Your task to perform on an android device: change the clock display to show seconds Image 0: 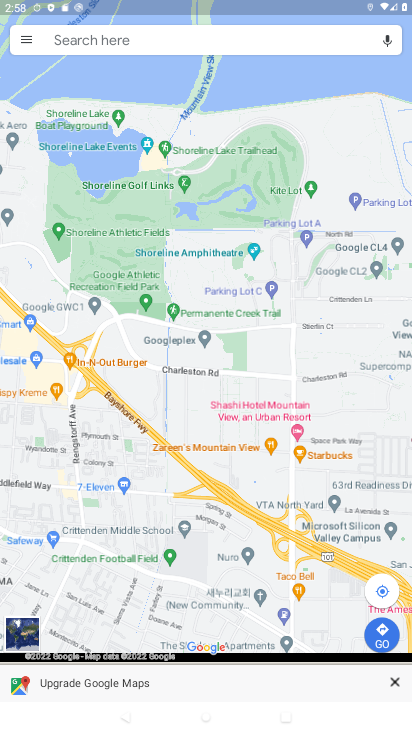
Step 0: click (213, 571)
Your task to perform on an android device: change the clock display to show seconds Image 1: 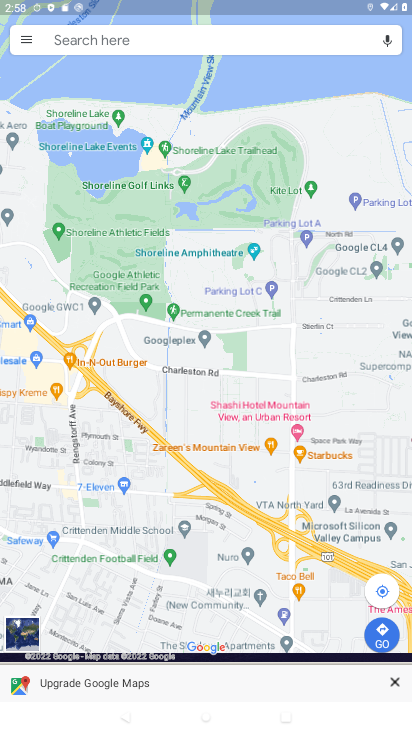
Step 1: drag from (233, 217) to (264, 8)
Your task to perform on an android device: change the clock display to show seconds Image 2: 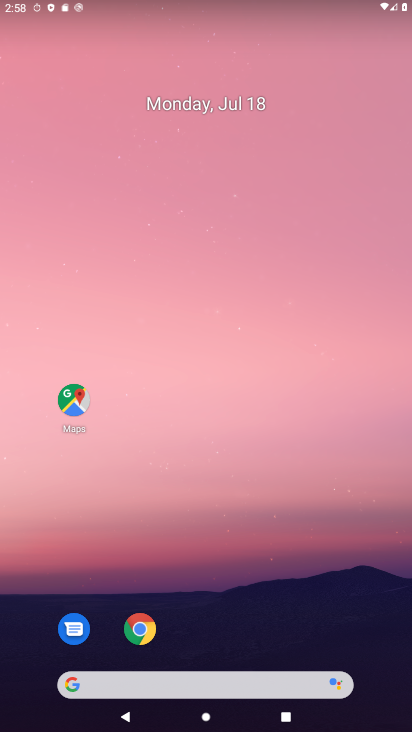
Step 2: drag from (223, 664) to (275, 9)
Your task to perform on an android device: change the clock display to show seconds Image 3: 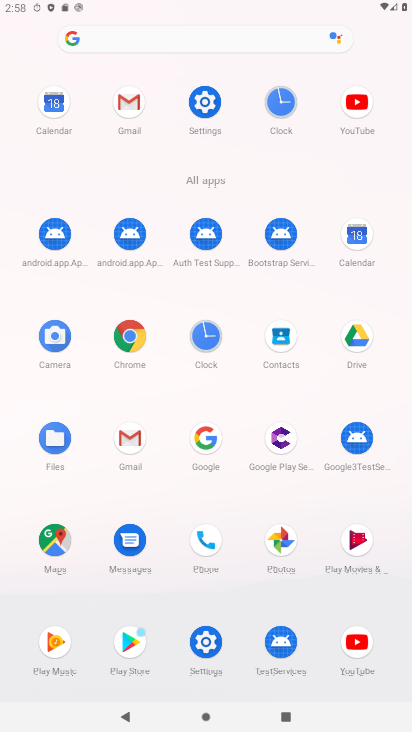
Step 3: click (200, 349)
Your task to perform on an android device: change the clock display to show seconds Image 4: 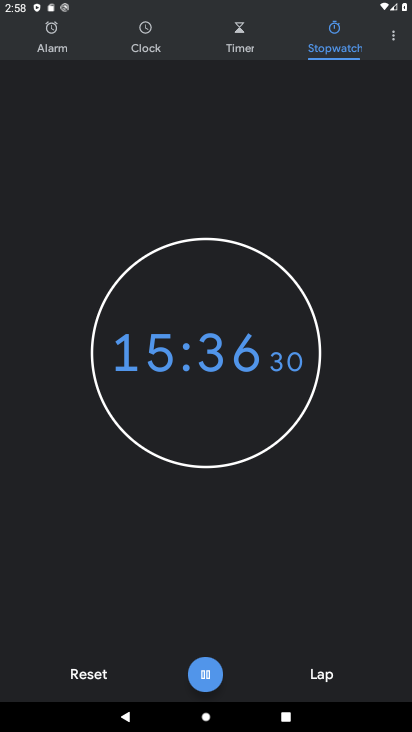
Step 4: click (84, 680)
Your task to perform on an android device: change the clock display to show seconds Image 5: 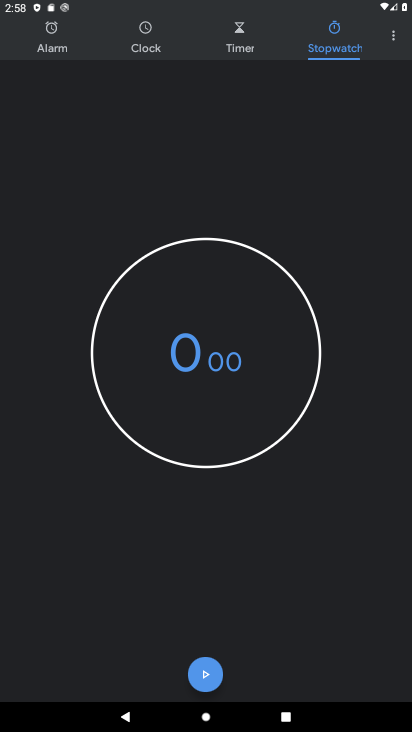
Step 5: click (393, 48)
Your task to perform on an android device: change the clock display to show seconds Image 6: 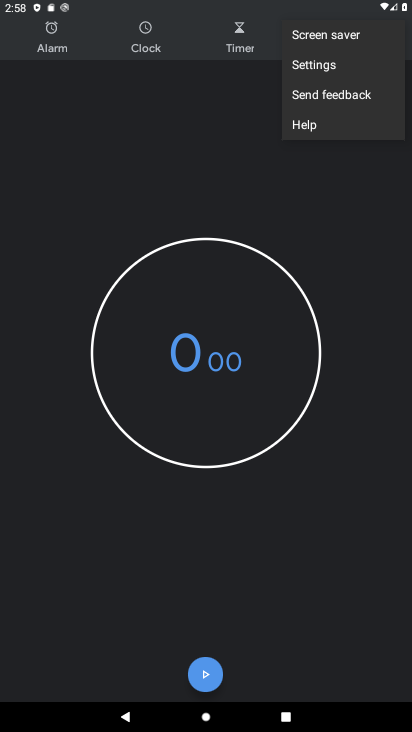
Step 6: click (326, 63)
Your task to perform on an android device: change the clock display to show seconds Image 7: 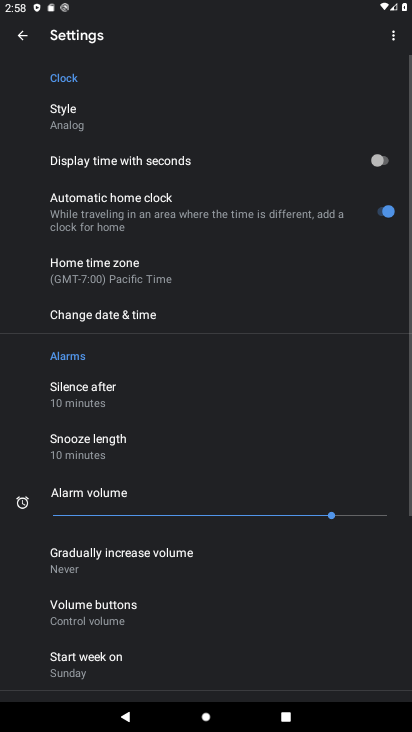
Step 7: click (66, 121)
Your task to perform on an android device: change the clock display to show seconds Image 8: 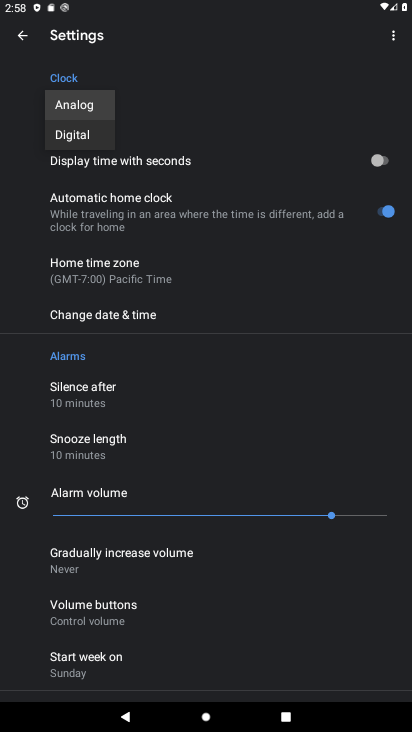
Step 8: click (98, 139)
Your task to perform on an android device: change the clock display to show seconds Image 9: 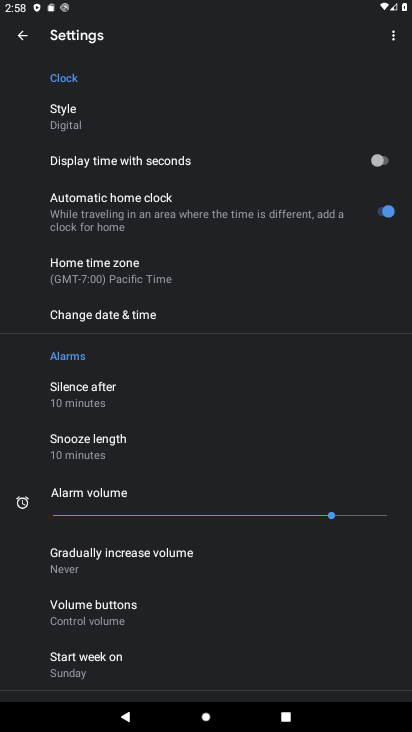
Step 9: click (391, 161)
Your task to perform on an android device: change the clock display to show seconds Image 10: 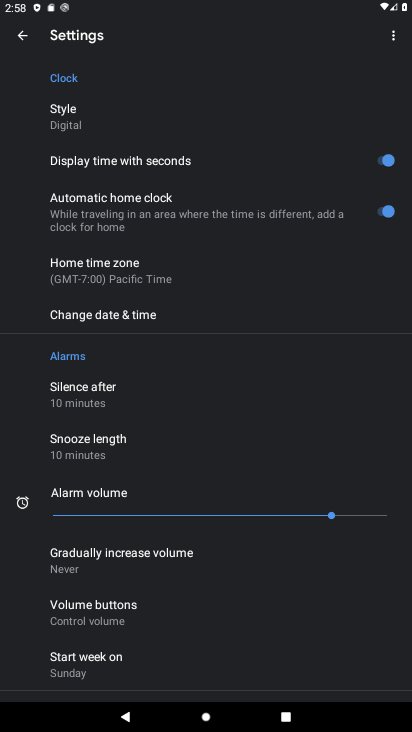
Step 10: task complete